Your task to perform on an android device: Open display settings Image 0: 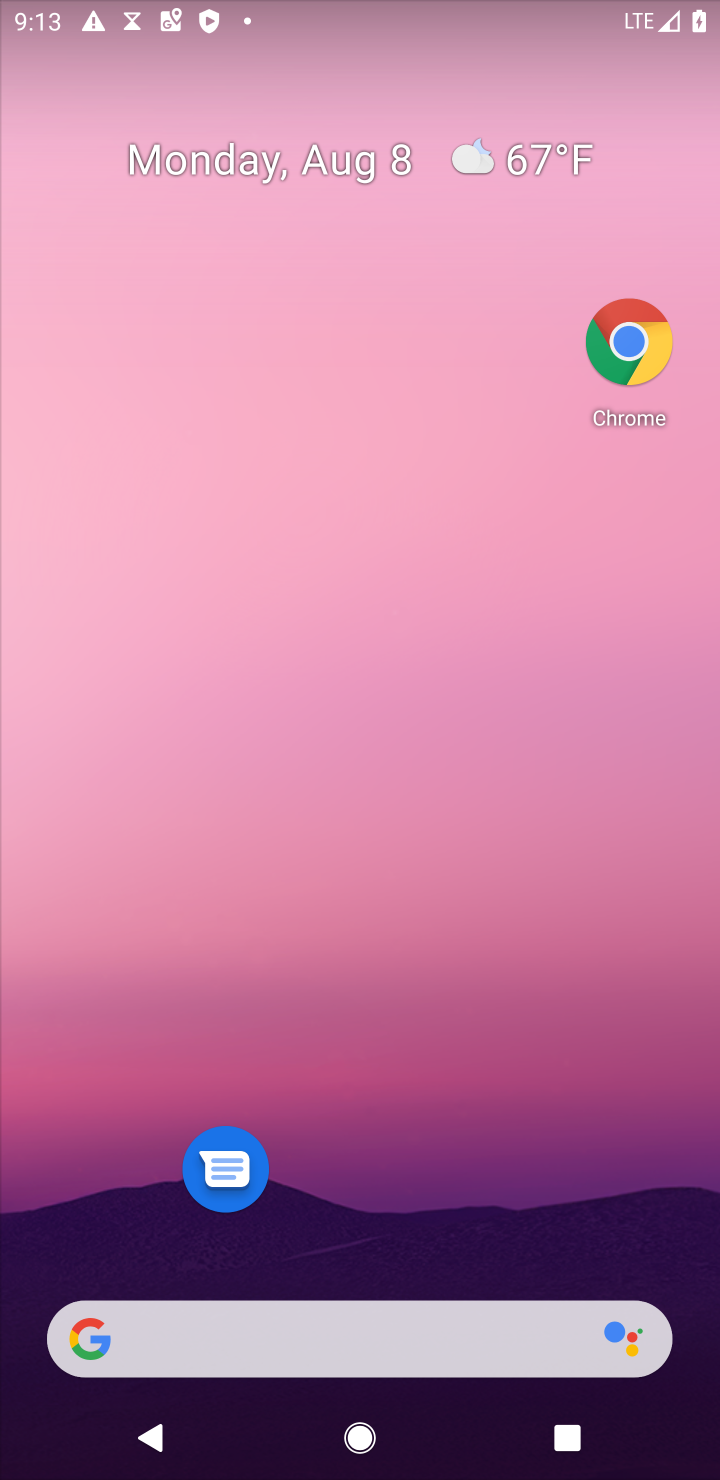
Step 0: drag from (404, 873) to (517, 7)
Your task to perform on an android device: Open display settings Image 1: 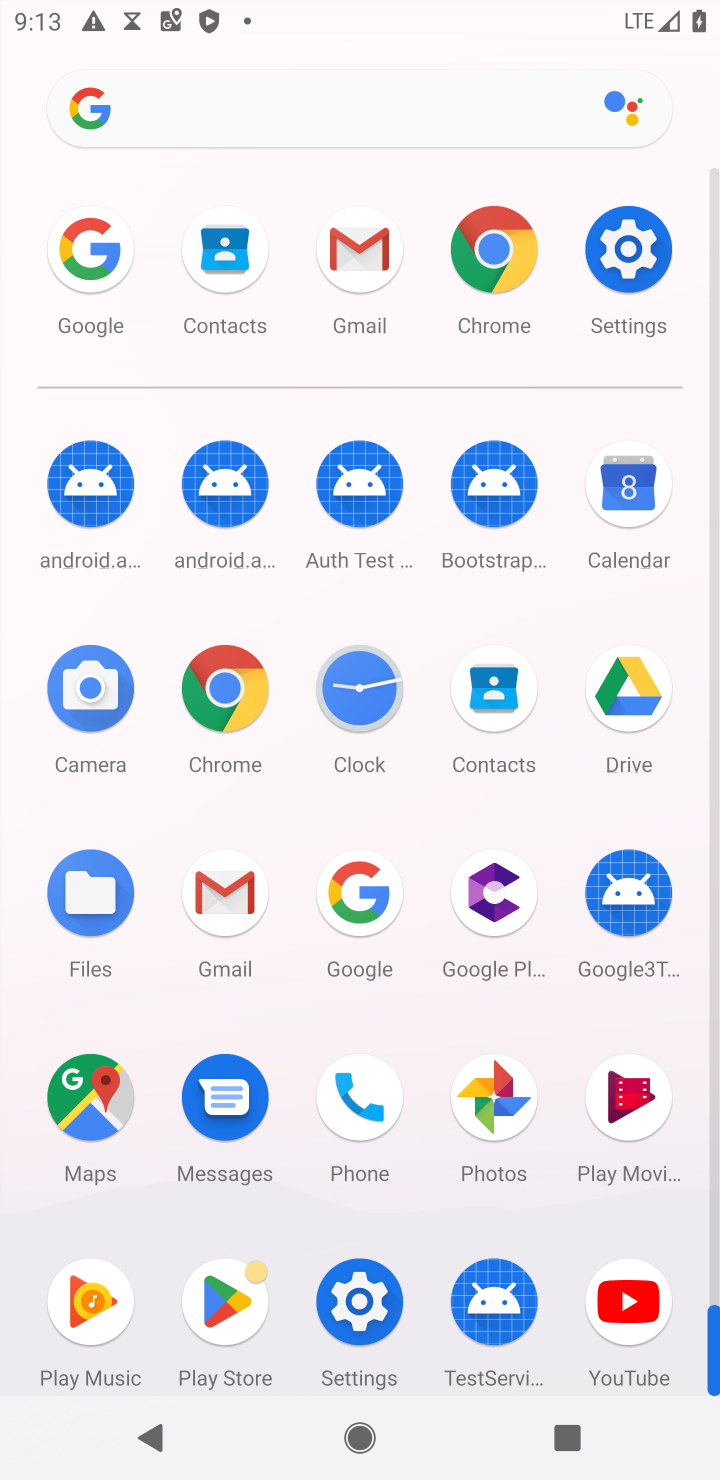
Step 1: click (636, 250)
Your task to perform on an android device: Open display settings Image 2: 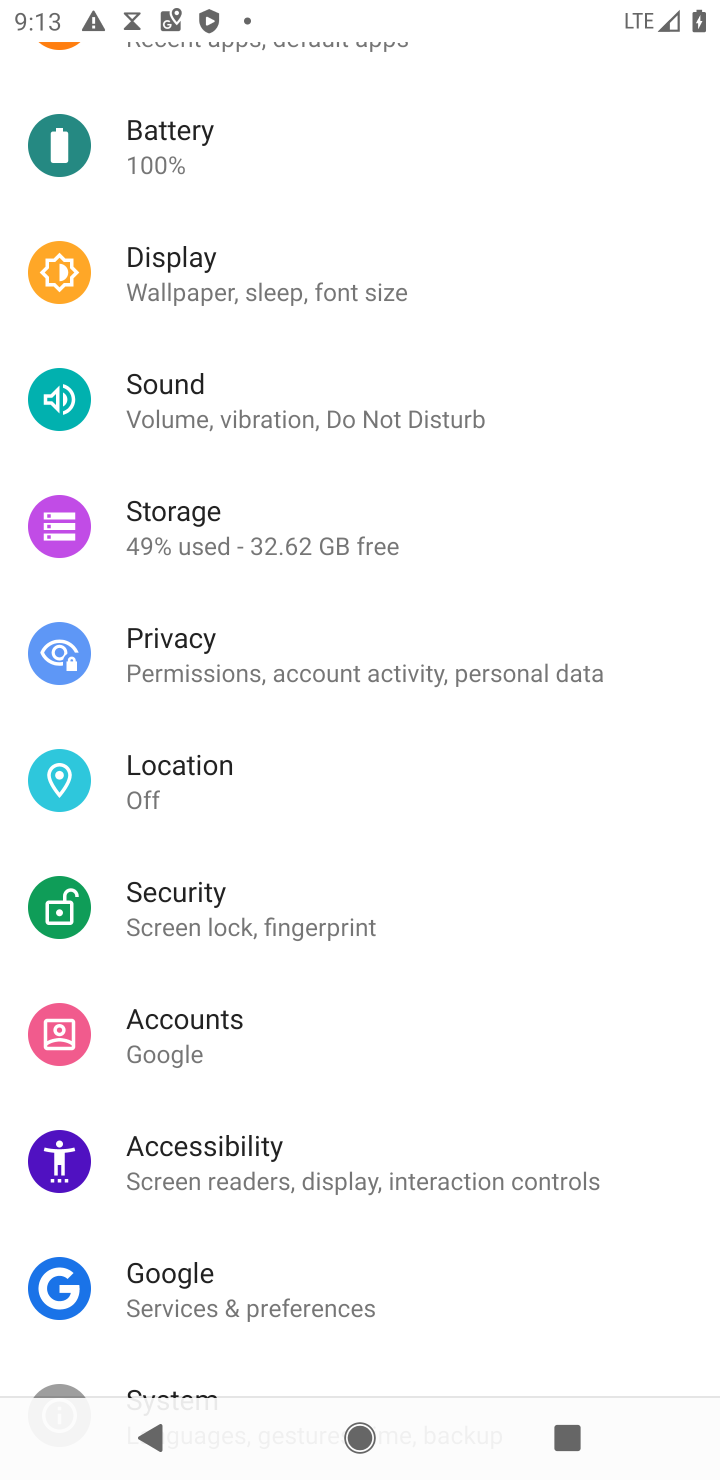
Step 2: click (263, 283)
Your task to perform on an android device: Open display settings Image 3: 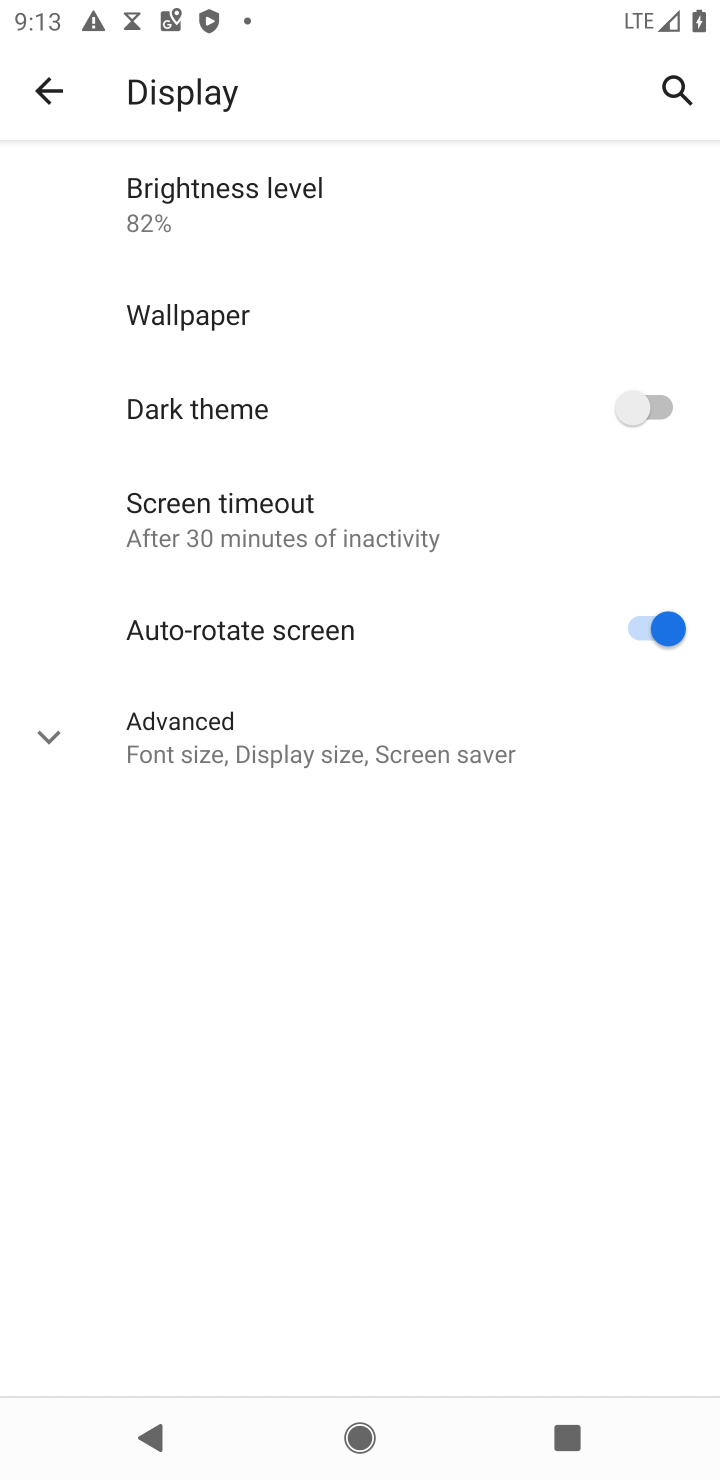
Step 3: task complete